Your task to perform on an android device: remove spam from my inbox in the gmail app Image 0: 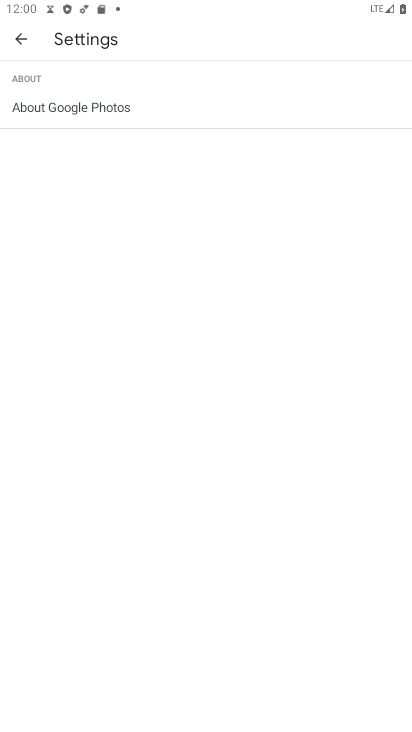
Step 0: press back button
Your task to perform on an android device: remove spam from my inbox in the gmail app Image 1: 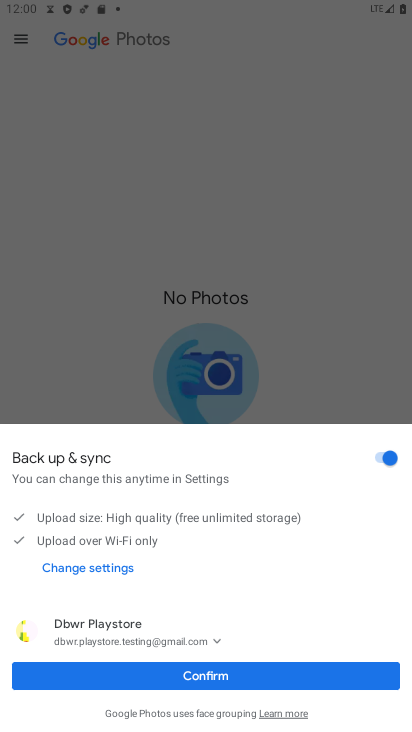
Step 1: press home button
Your task to perform on an android device: remove spam from my inbox in the gmail app Image 2: 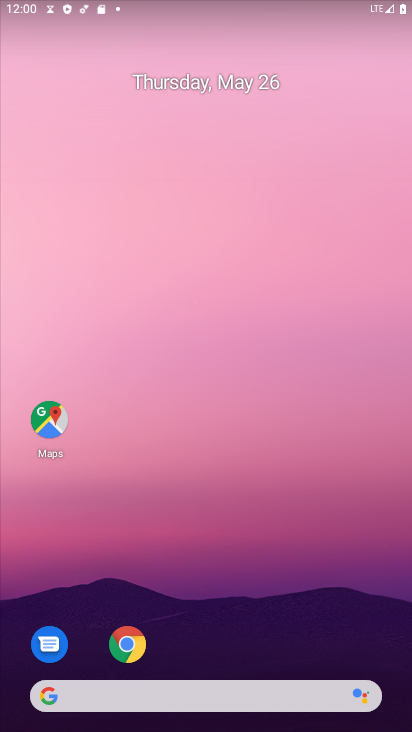
Step 2: drag from (273, 600) to (192, 117)
Your task to perform on an android device: remove spam from my inbox in the gmail app Image 3: 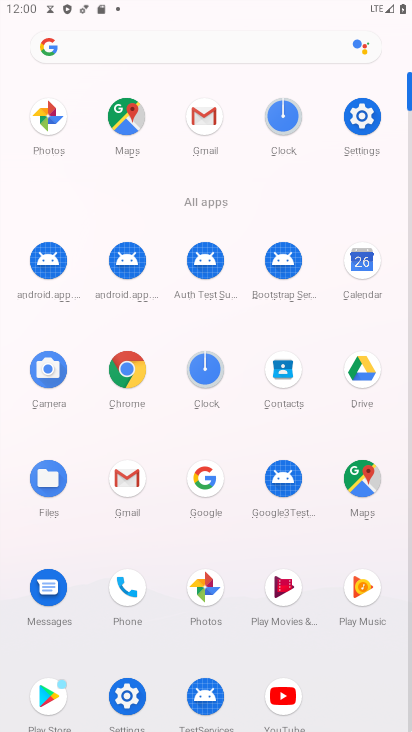
Step 3: click (203, 114)
Your task to perform on an android device: remove spam from my inbox in the gmail app Image 4: 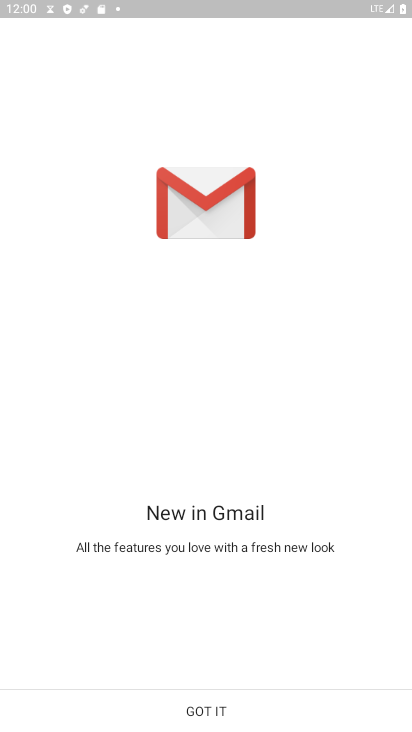
Step 4: click (207, 711)
Your task to perform on an android device: remove spam from my inbox in the gmail app Image 5: 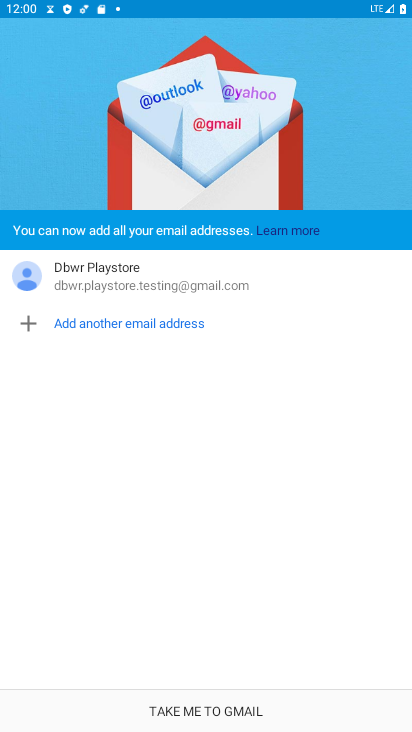
Step 5: click (207, 711)
Your task to perform on an android device: remove spam from my inbox in the gmail app Image 6: 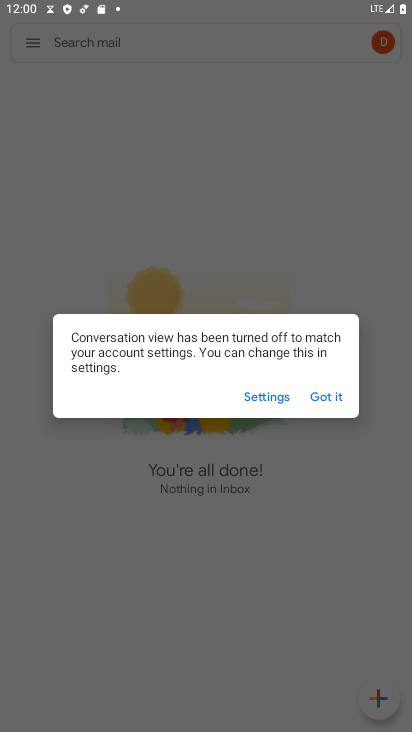
Step 6: click (323, 398)
Your task to perform on an android device: remove spam from my inbox in the gmail app Image 7: 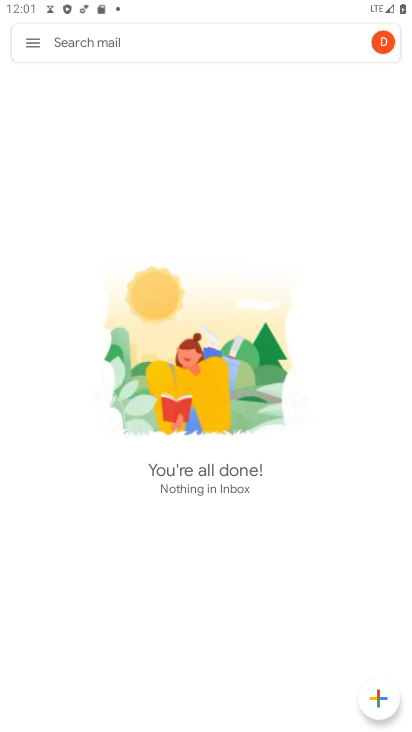
Step 7: click (34, 44)
Your task to perform on an android device: remove spam from my inbox in the gmail app Image 8: 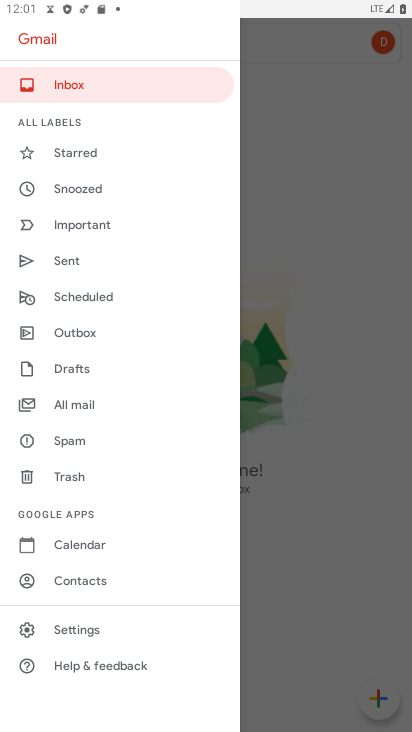
Step 8: click (64, 438)
Your task to perform on an android device: remove spam from my inbox in the gmail app Image 9: 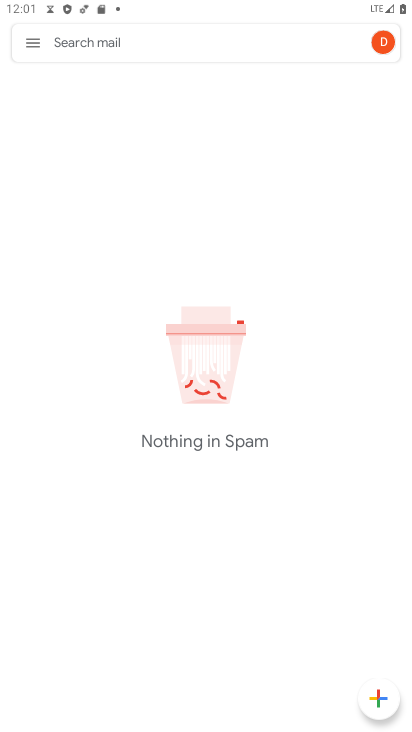
Step 9: task complete